Your task to perform on an android device: Go to CNN.com Image 0: 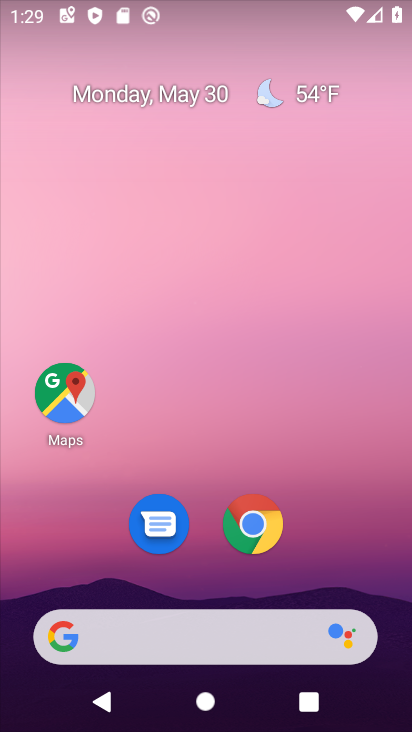
Step 0: click (227, 637)
Your task to perform on an android device: Go to CNN.com Image 1: 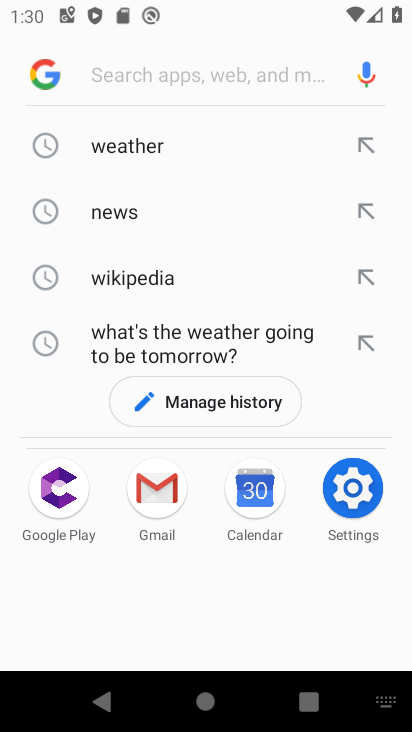
Step 1: type "cnn.com"
Your task to perform on an android device: Go to CNN.com Image 2: 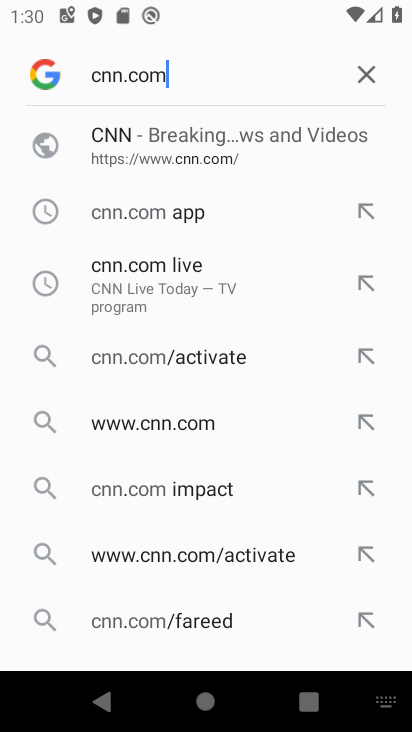
Step 2: click (150, 149)
Your task to perform on an android device: Go to CNN.com Image 3: 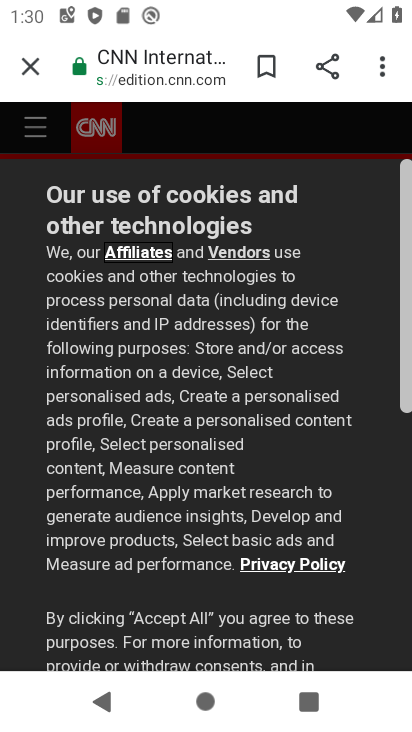
Step 3: task complete